Your task to perform on an android device: Go to notification settings Image 0: 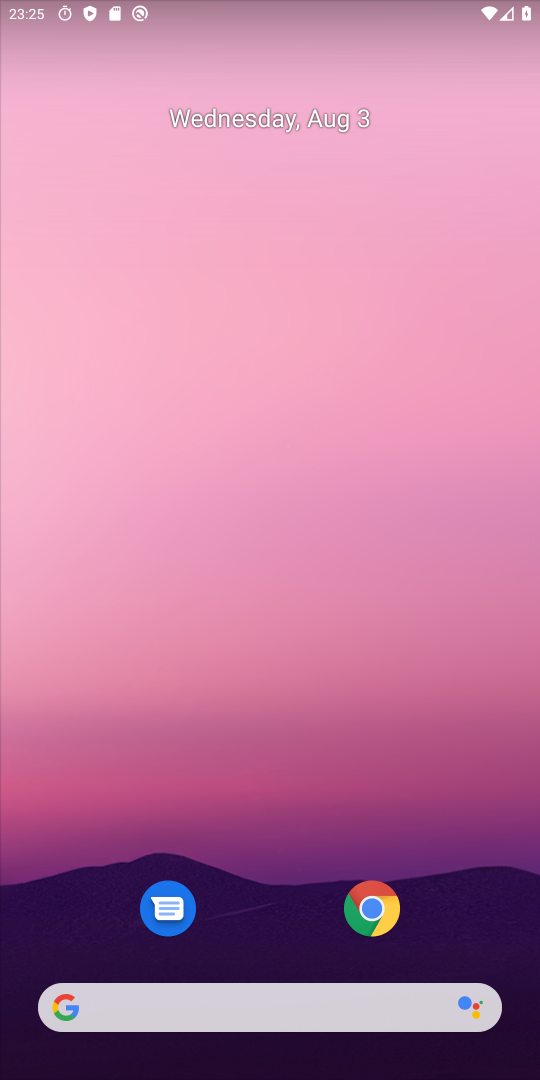
Step 0: drag from (275, 1023) to (208, 337)
Your task to perform on an android device: Go to notification settings Image 1: 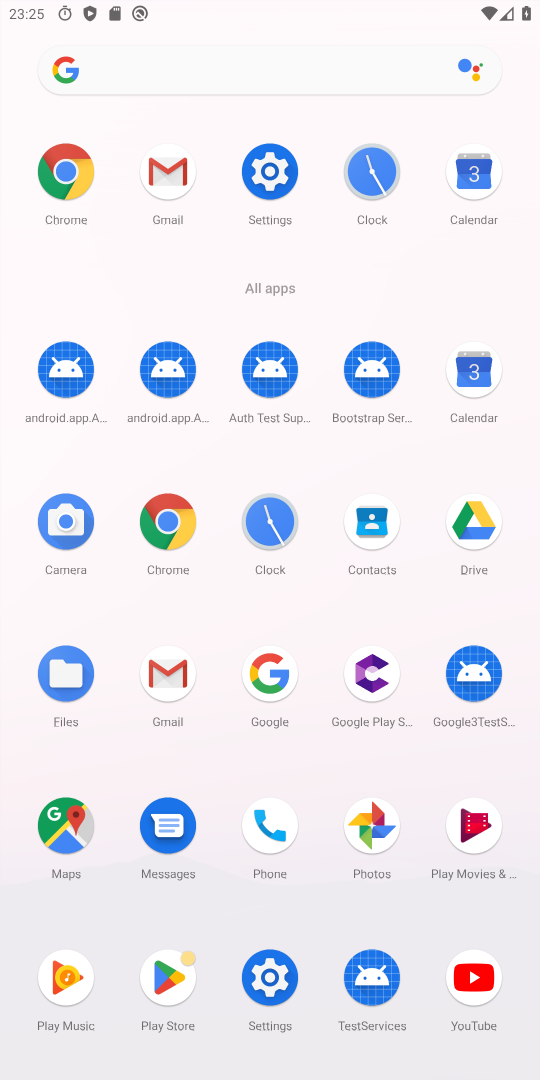
Step 1: click (247, 161)
Your task to perform on an android device: Go to notification settings Image 2: 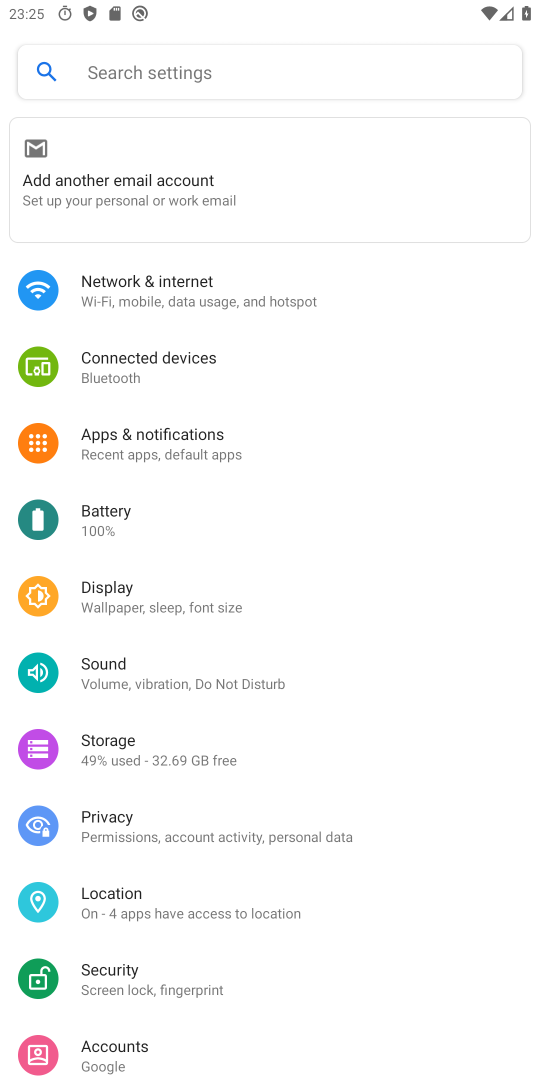
Step 2: click (173, 75)
Your task to perform on an android device: Go to notification settings Image 3: 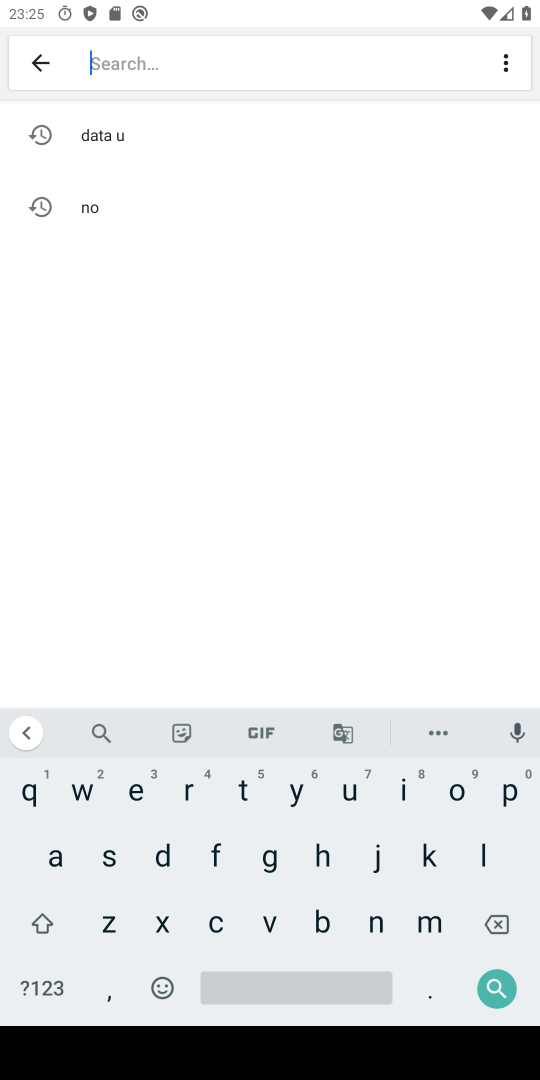
Step 3: click (110, 214)
Your task to perform on an android device: Go to notification settings Image 4: 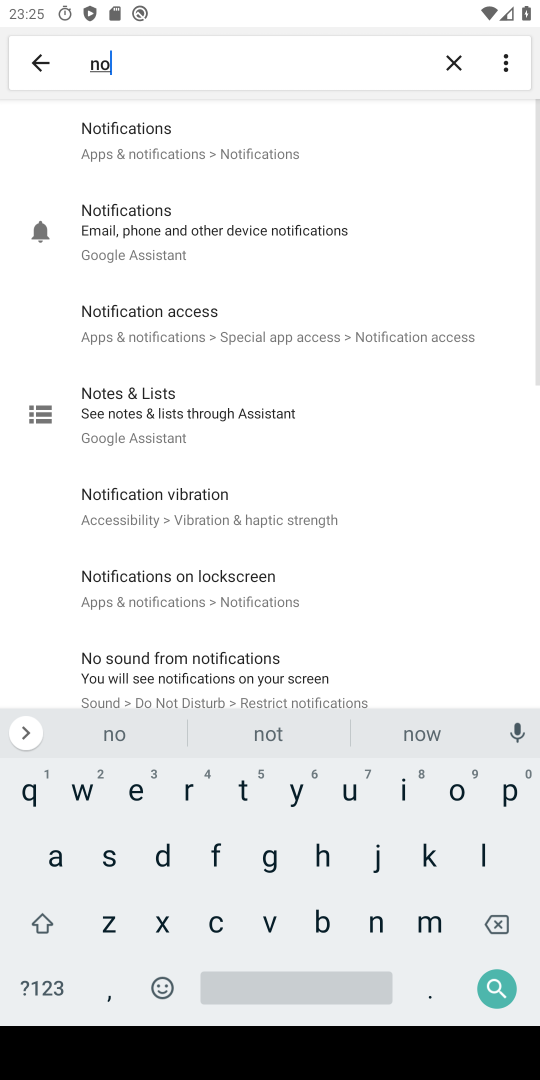
Step 4: click (185, 140)
Your task to perform on an android device: Go to notification settings Image 5: 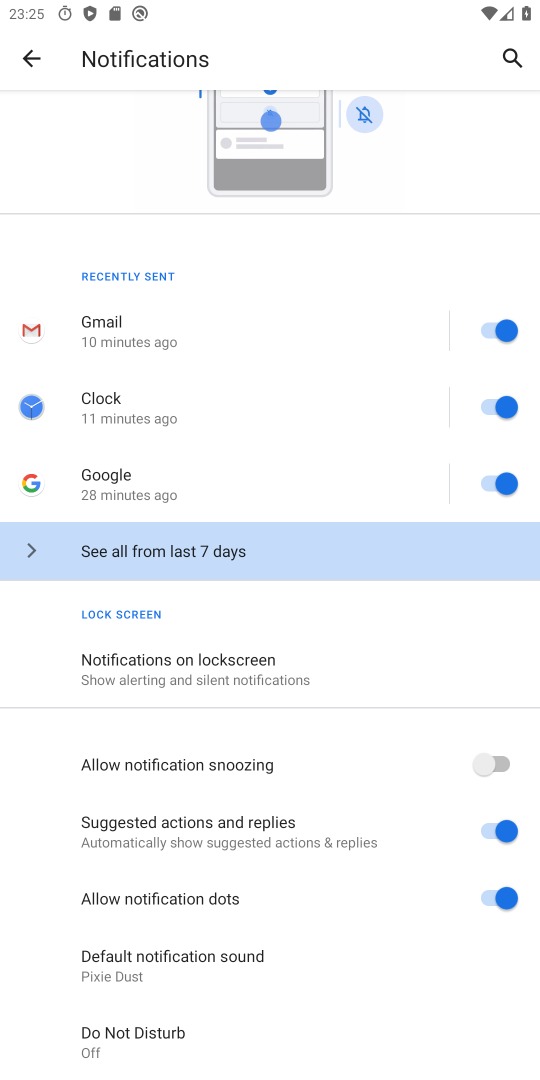
Step 5: click (117, 677)
Your task to perform on an android device: Go to notification settings Image 6: 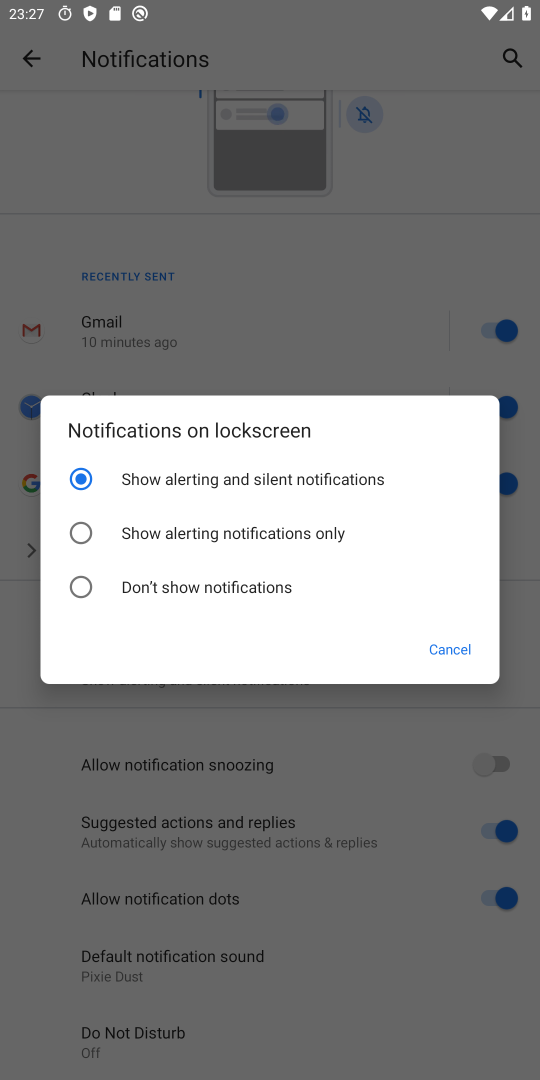
Step 6: task complete